Your task to perform on an android device: Open sound settings Image 0: 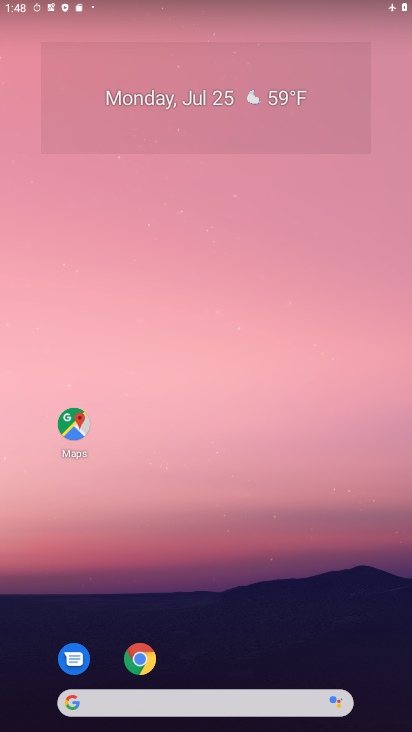
Step 0: click (208, 363)
Your task to perform on an android device: Open sound settings Image 1: 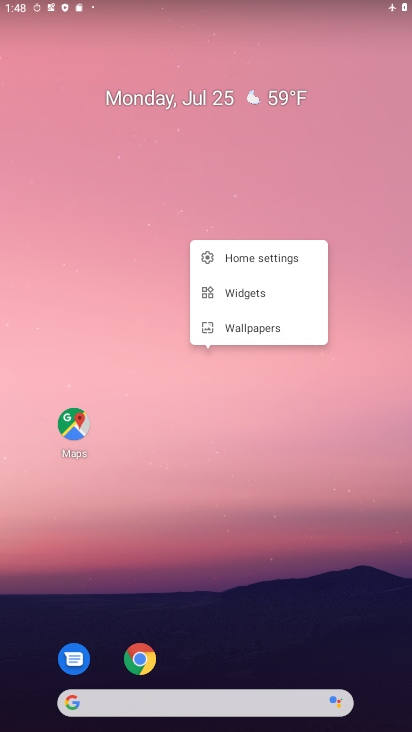
Step 1: drag from (269, 599) to (253, 16)
Your task to perform on an android device: Open sound settings Image 2: 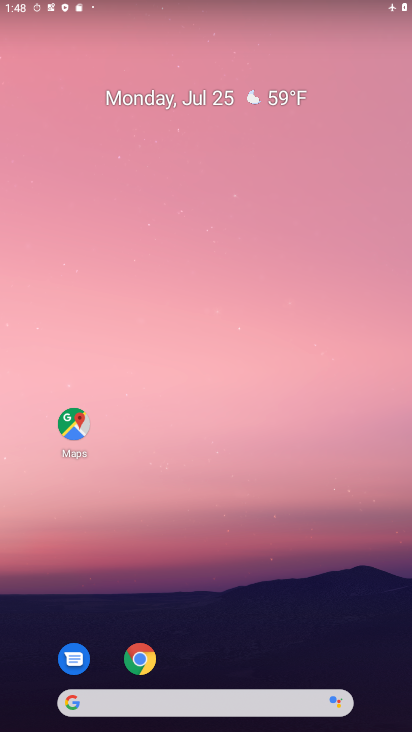
Step 2: drag from (283, 612) to (291, 7)
Your task to perform on an android device: Open sound settings Image 3: 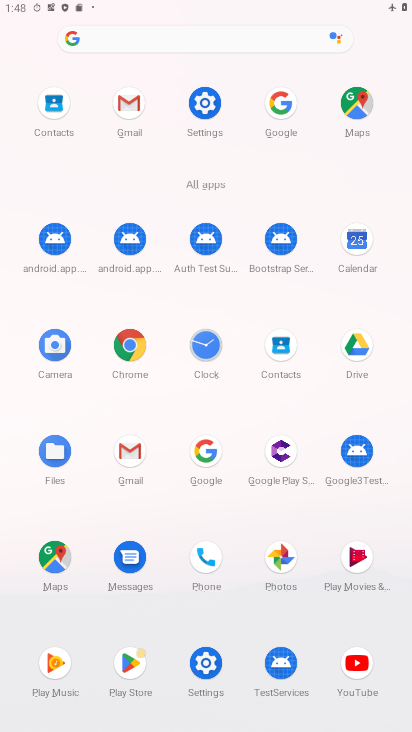
Step 3: click (202, 113)
Your task to perform on an android device: Open sound settings Image 4: 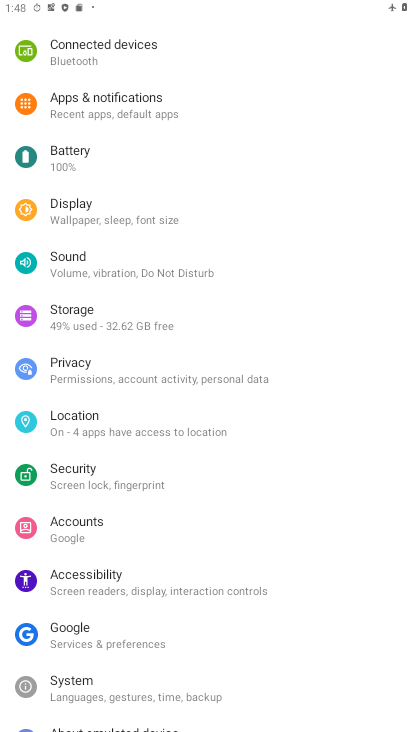
Step 4: click (74, 278)
Your task to perform on an android device: Open sound settings Image 5: 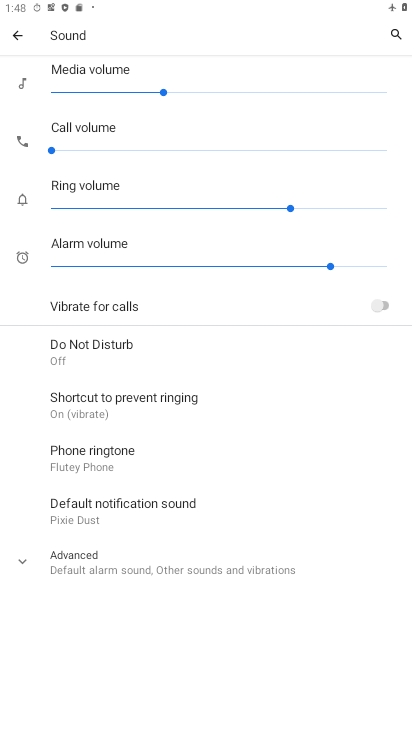
Step 5: task complete